Your task to perform on an android device: Is it going to rain this weekend? Image 0: 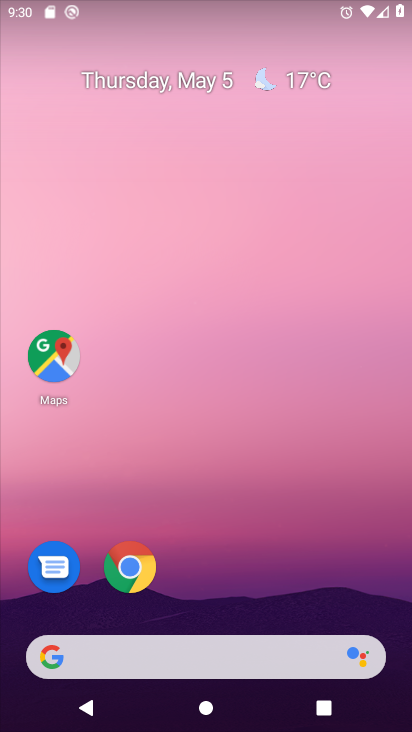
Step 0: click (260, 561)
Your task to perform on an android device: Is it going to rain this weekend? Image 1: 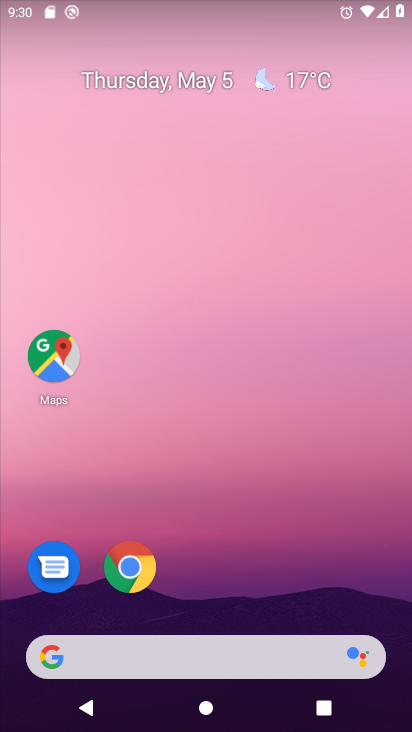
Step 1: click (300, 80)
Your task to perform on an android device: Is it going to rain this weekend? Image 2: 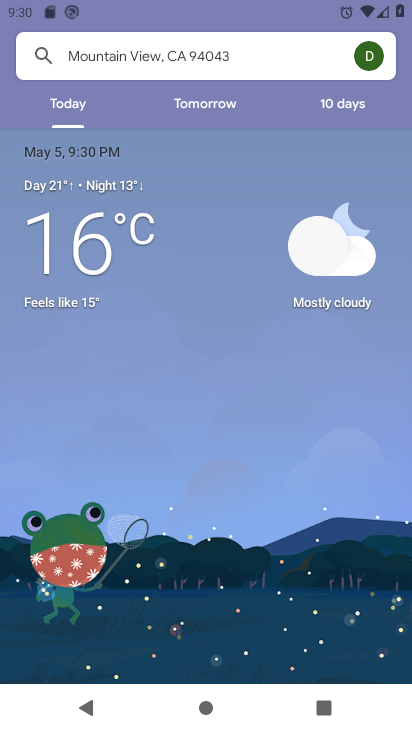
Step 2: click (350, 102)
Your task to perform on an android device: Is it going to rain this weekend? Image 3: 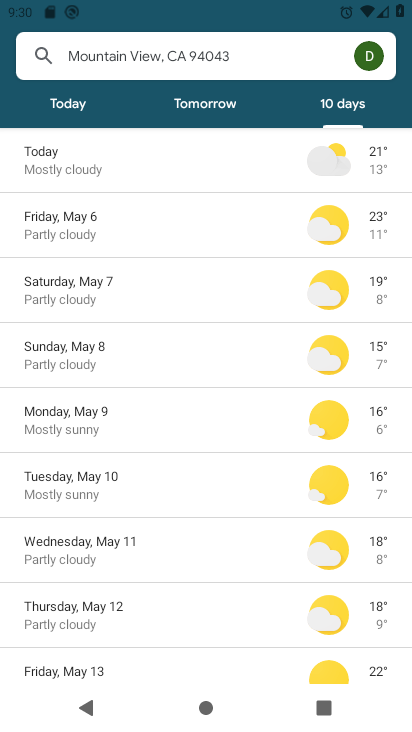
Step 3: click (86, 292)
Your task to perform on an android device: Is it going to rain this weekend? Image 4: 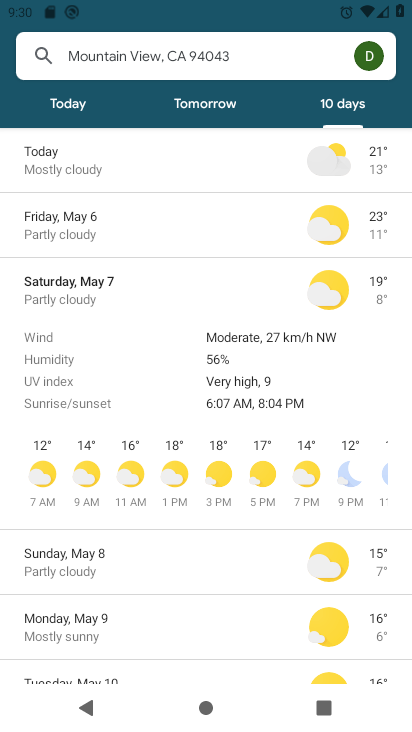
Step 4: task complete